Your task to perform on an android device: Search for seafood restaurants on Google Maps Image 0: 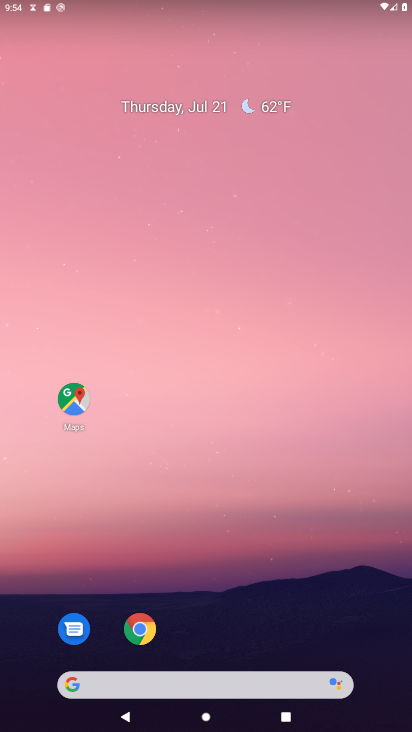
Step 0: drag from (212, 617) to (182, 324)
Your task to perform on an android device: Search for seafood restaurants on Google Maps Image 1: 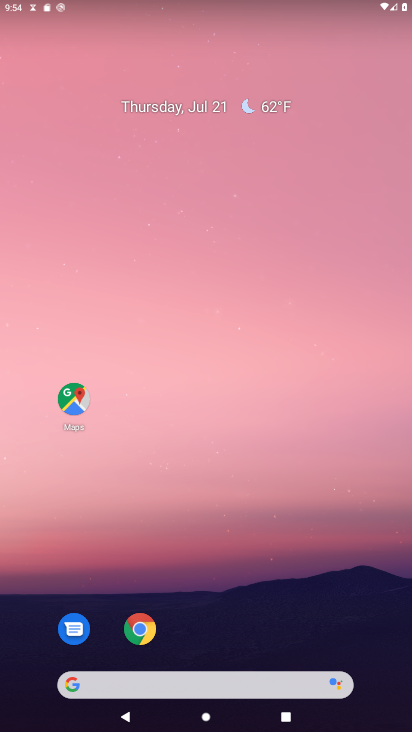
Step 1: click (85, 407)
Your task to perform on an android device: Search for seafood restaurants on Google Maps Image 2: 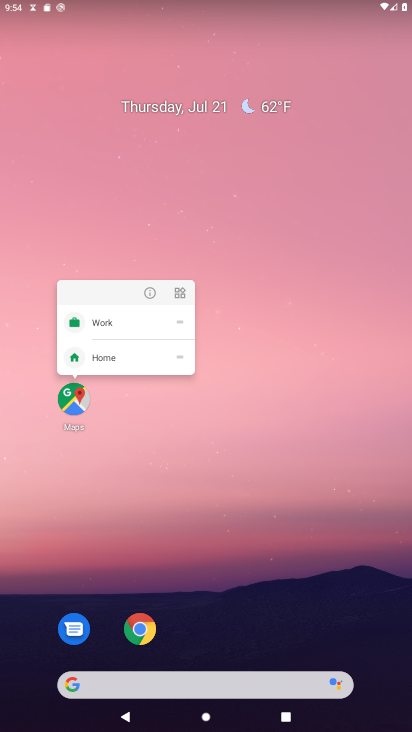
Step 2: click (82, 403)
Your task to perform on an android device: Search for seafood restaurants on Google Maps Image 3: 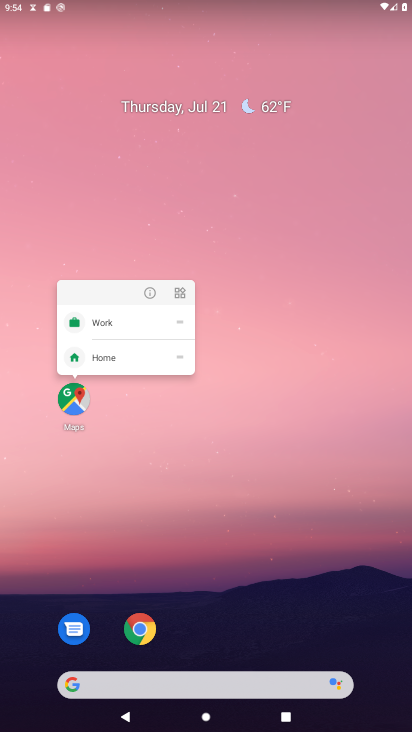
Step 3: click (82, 403)
Your task to perform on an android device: Search for seafood restaurants on Google Maps Image 4: 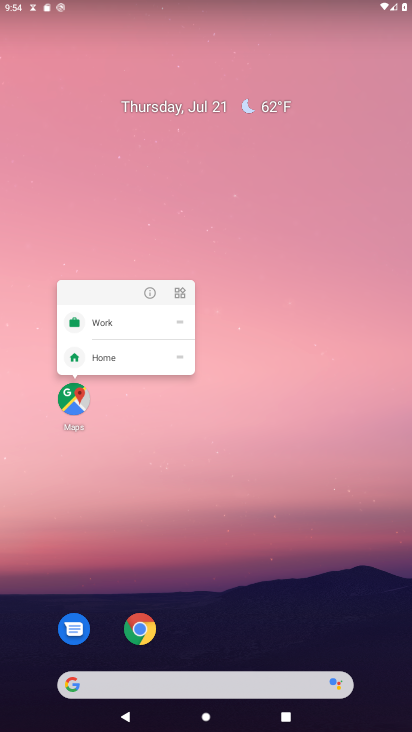
Step 4: click (82, 403)
Your task to perform on an android device: Search for seafood restaurants on Google Maps Image 5: 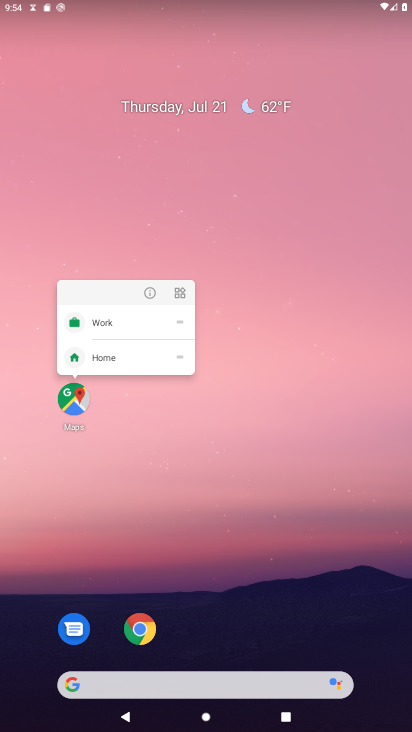
Step 5: click (74, 392)
Your task to perform on an android device: Search for seafood restaurants on Google Maps Image 6: 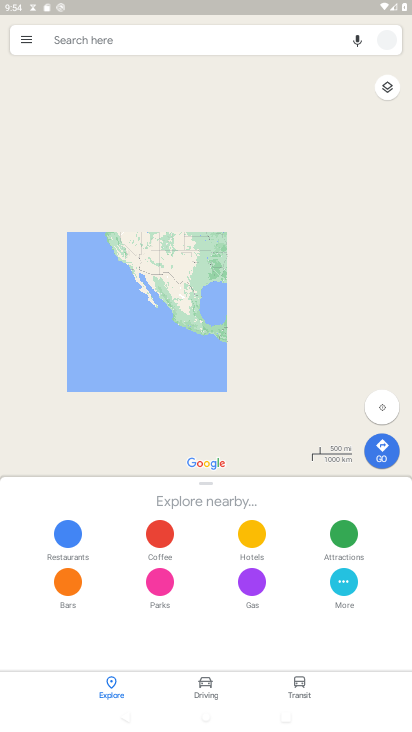
Step 6: click (202, 35)
Your task to perform on an android device: Search for seafood restaurants on Google Maps Image 7: 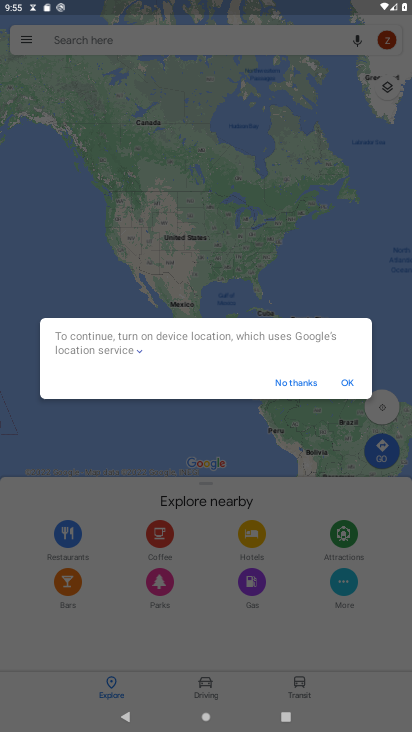
Step 7: click (345, 385)
Your task to perform on an android device: Search for seafood restaurants on Google Maps Image 8: 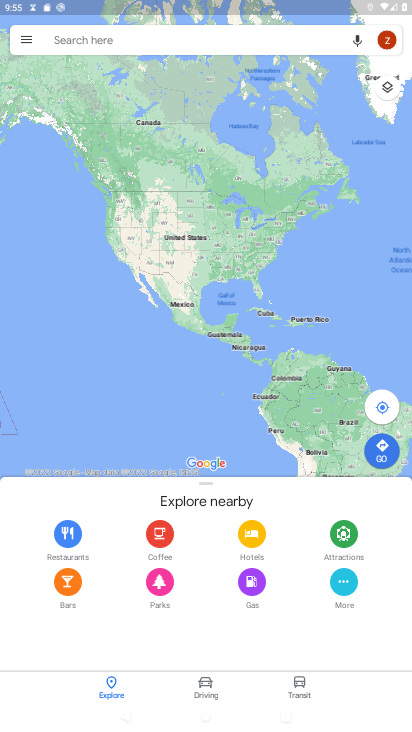
Step 8: click (187, 31)
Your task to perform on an android device: Search for seafood restaurants on Google Maps Image 9: 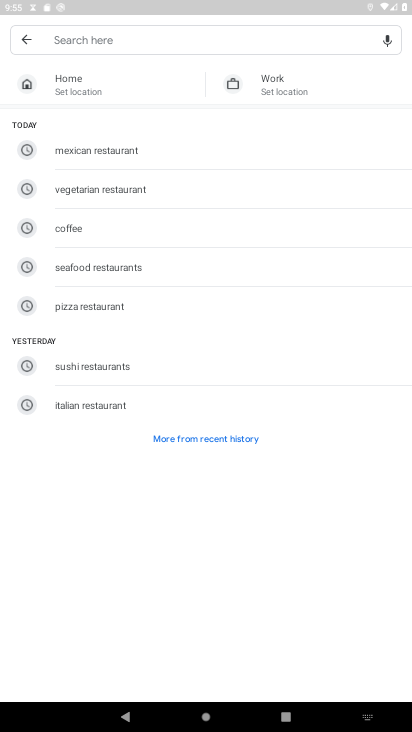
Step 9: click (125, 274)
Your task to perform on an android device: Search for seafood restaurants on Google Maps Image 10: 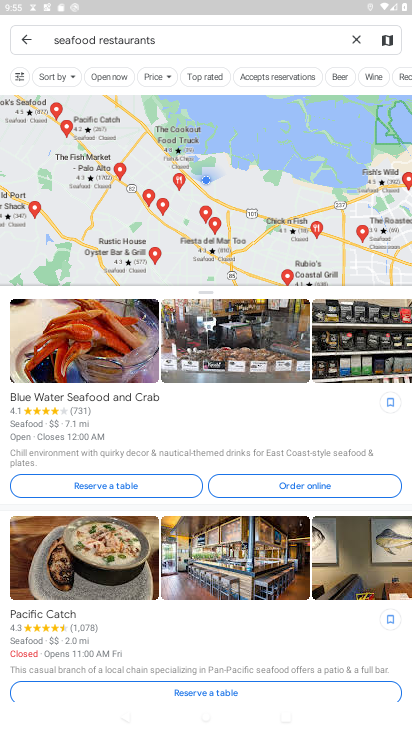
Step 10: task complete